Your task to perform on an android device: Open the phone app and click the voicemail tab. Image 0: 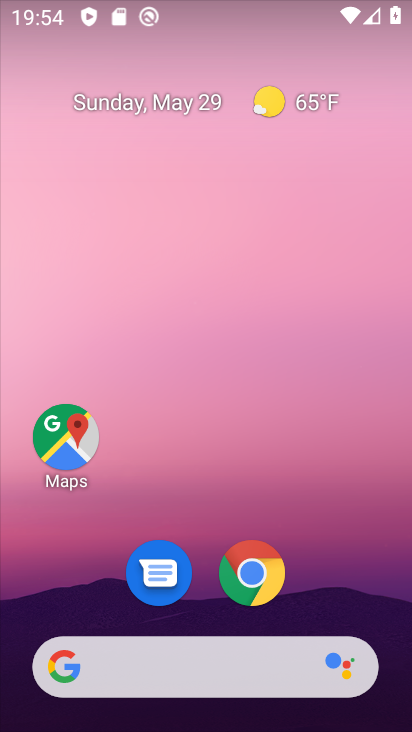
Step 0: drag from (206, 617) to (171, 239)
Your task to perform on an android device: Open the phone app and click the voicemail tab. Image 1: 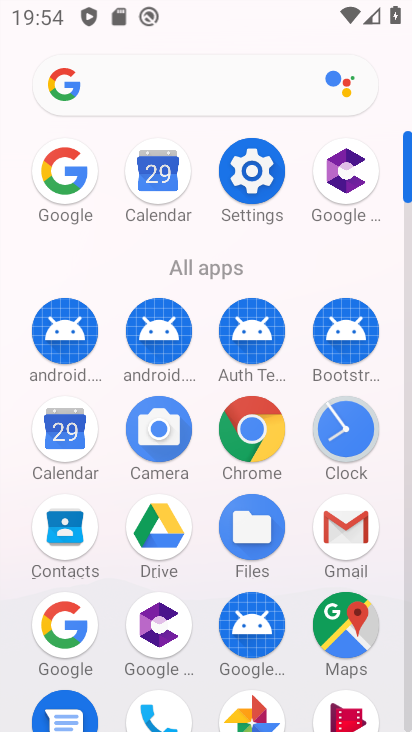
Step 1: drag from (93, 612) to (87, 362)
Your task to perform on an android device: Open the phone app and click the voicemail tab. Image 2: 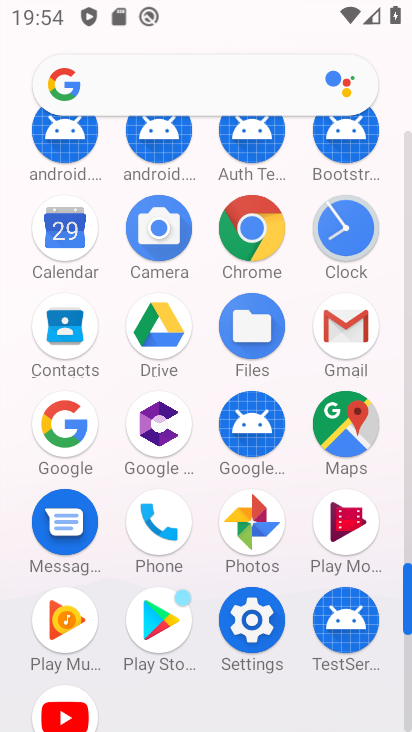
Step 2: click (148, 518)
Your task to perform on an android device: Open the phone app and click the voicemail tab. Image 3: 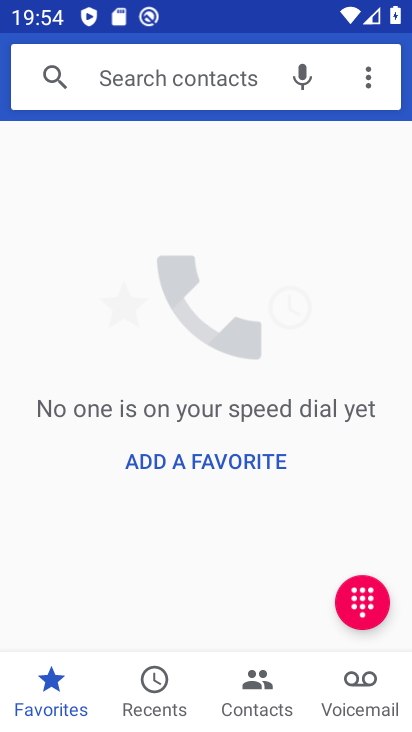
Step 3: click (351, 666)
Your task to perform on an android device: Open the phone app and click the voicemail tab. Image 4: 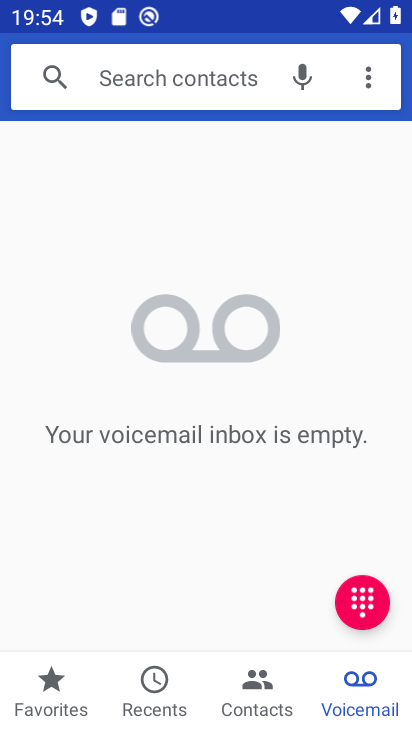
Step 4: task complete